Your task to perform on an android device: Open display settings Image 0: 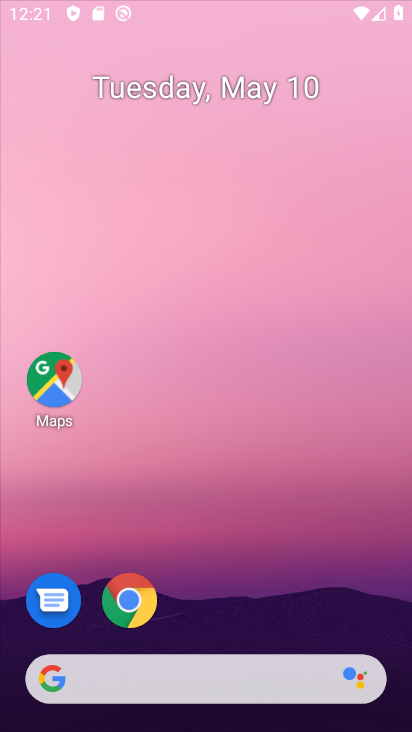
Step 0: drag from (202, 653) to (316, 166)
Your task to perform on an android device: Open display settings Image 1: 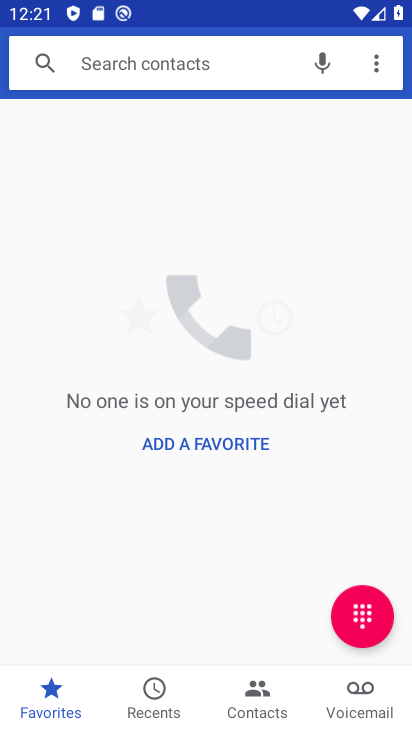
Step 1: press home button
Your task to perform on an android device: Open display settings Image 2: 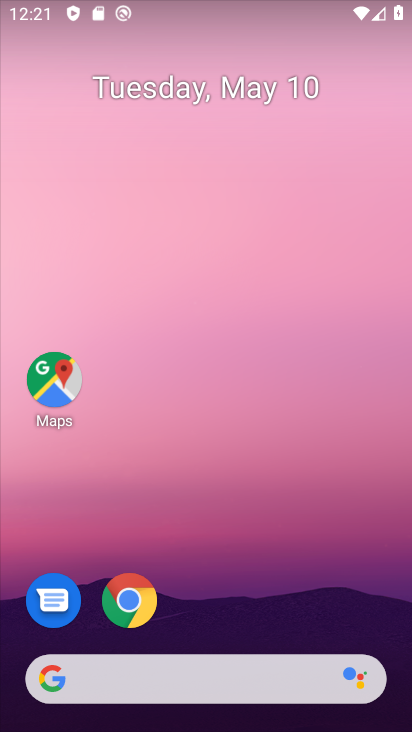
Step 2: drag from (177, 644) to (283, 118)
Your task to perform on an android device: Open display settings Image 3: 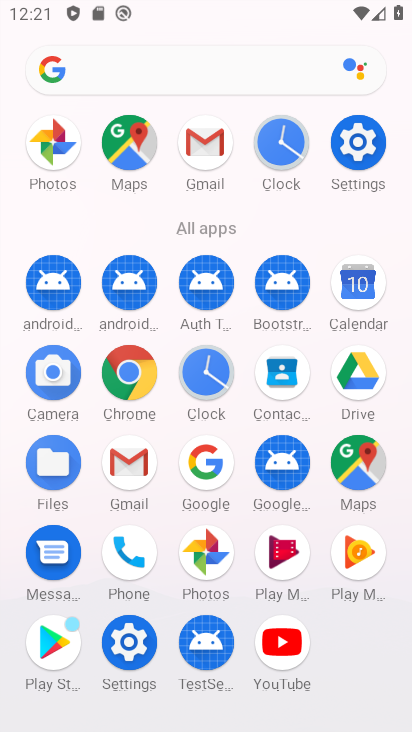
Step 3: click (128, 656)
Your task to perform on an android device: Open display settings Image 4: 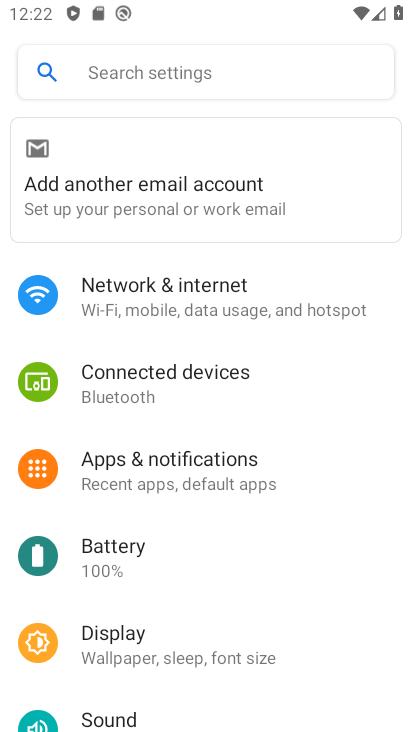
Step 4: click (137, 651)
Your task to perform on an android device: Open display settings Image 5: 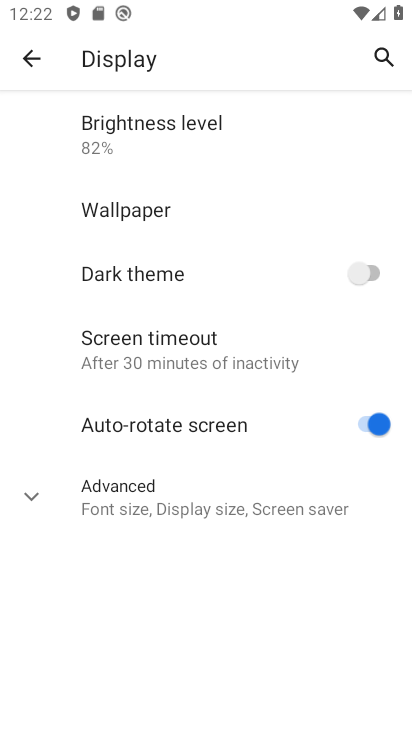
Step 5: task complete